Your task to perform on an android device: Check the weather Image 0: 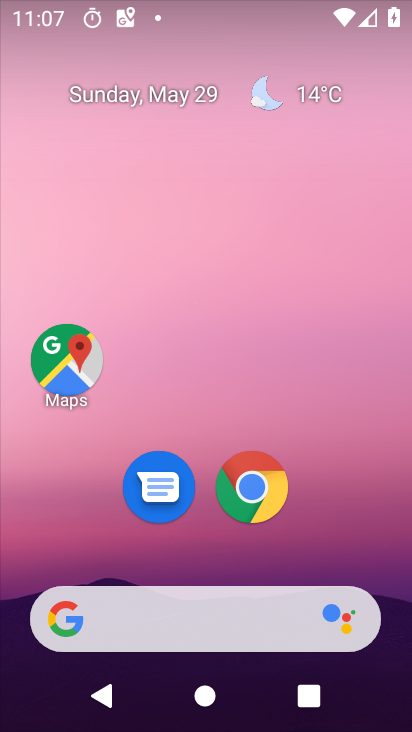
Step 0: click (305, 90)
Your task to perform on an android device: Check the weather Image 1: 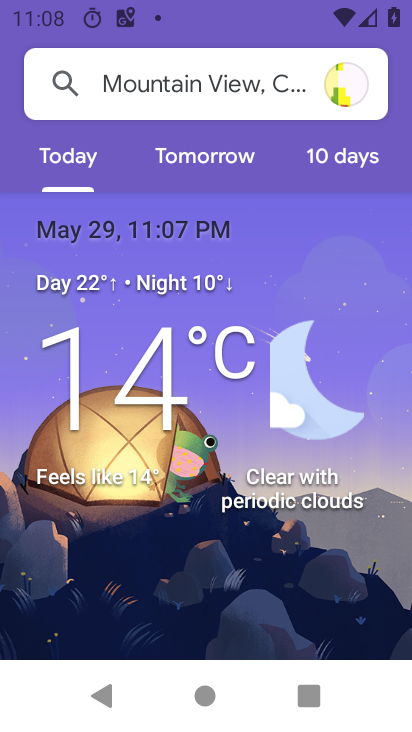
Step 1: click (71, 159)
Your task to perform on an android device: Check the weather Image 2: 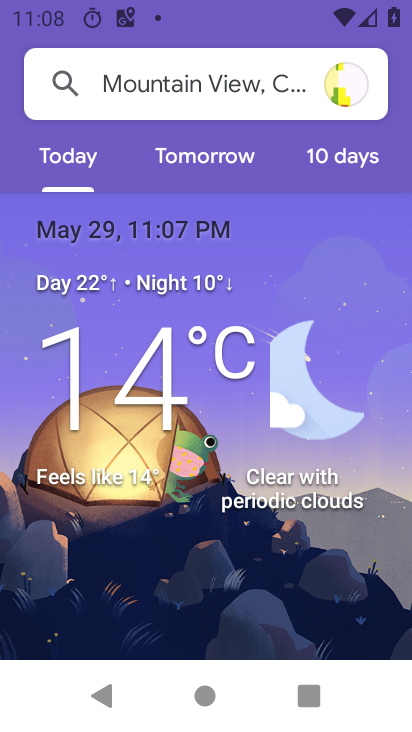
Step 2: task complete